Your task to perform on an android device: Open the calendar and show me this week's events? Image 0: 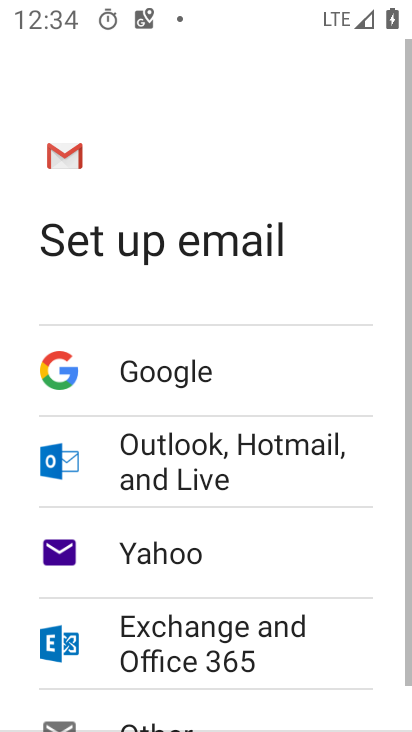
Step 0: press home button
Your task to perform on an android device: Open the calendar and show me this week's events? Image 1: 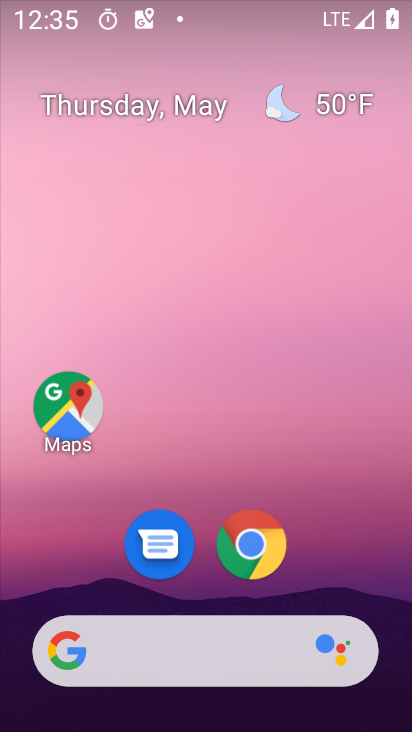
Step 1: drag from (147, 657) to (148, 171)
Your task to perform on an android device: Open the calendar and show me this week's events? Image 2: 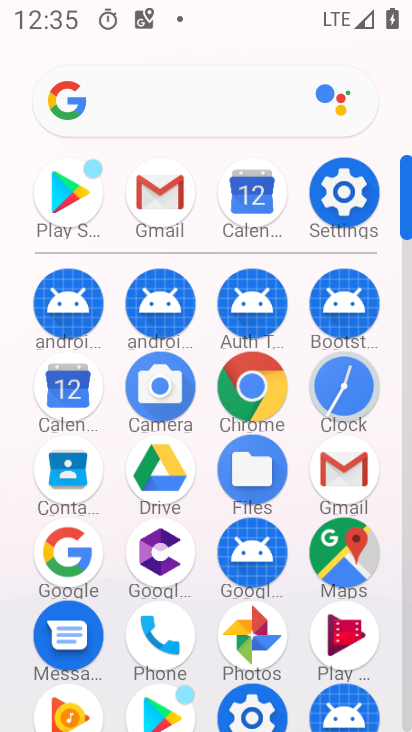
Step 2: click (70, 385)
Your task to perform on an android device: Open the calendar and show me this week's events? Image 3: 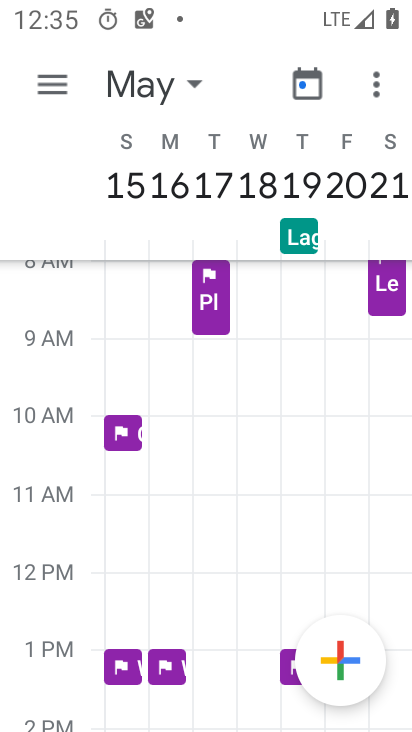
Step 3: task complete